Your task to perform on an android device: read, delete, or share a saved page in the chrome app Image 0: 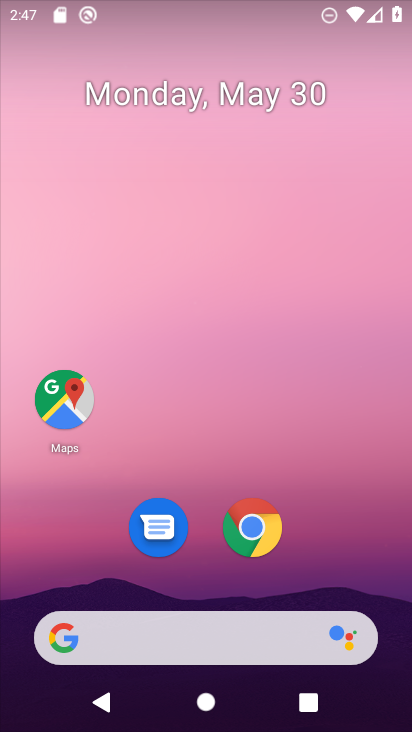
Step 0: drag from (275, 544) to (283, 266)
Your task to perform on an android device: read, delete, or share a saved page in the chrome app Image 1: 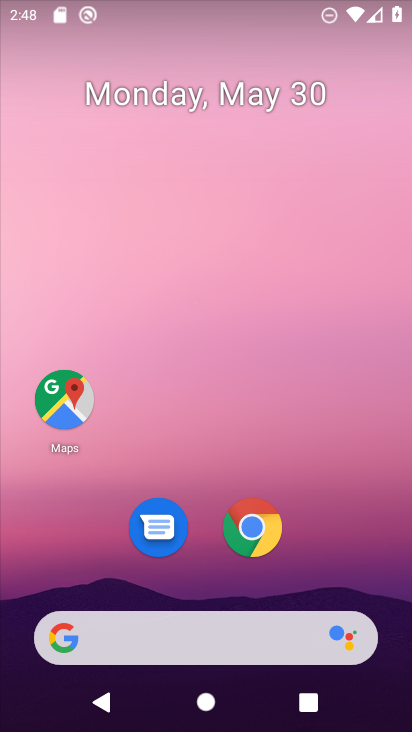
Step 1: click (288, 320)
Your task to perform on an android device: read, delete, or share a saved page in the chrome app Image 2: 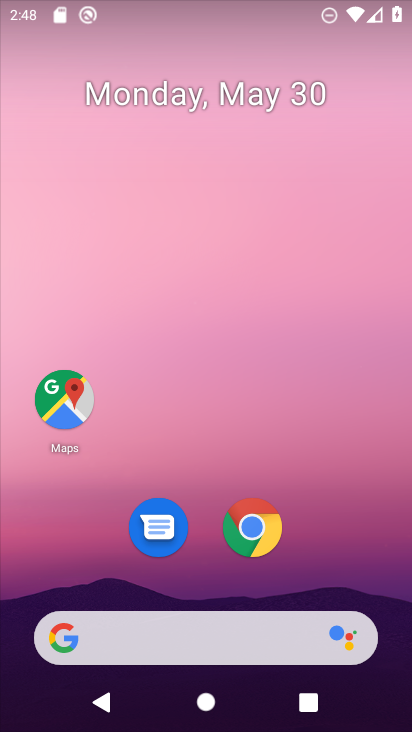
Step 2: drag from (248, 684) to (242, 154)
Your task to perform on an android device: read, delete, or share a saved page in the chrome app Image 3: 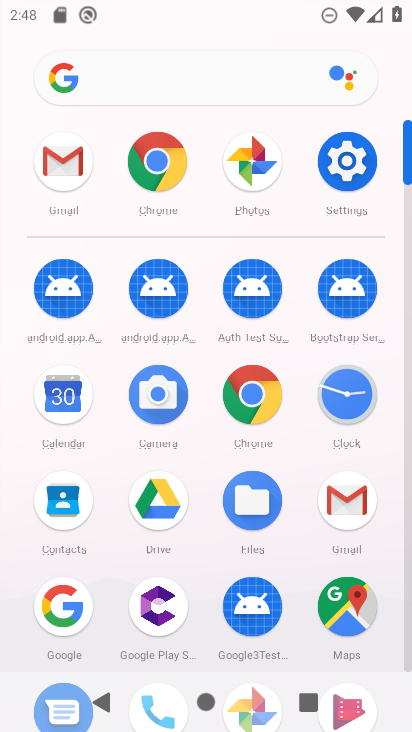
Step 3: click (249, 377)
Your task to perform on an android device: read, delete, or share a saved page in the chrome app Image 4: 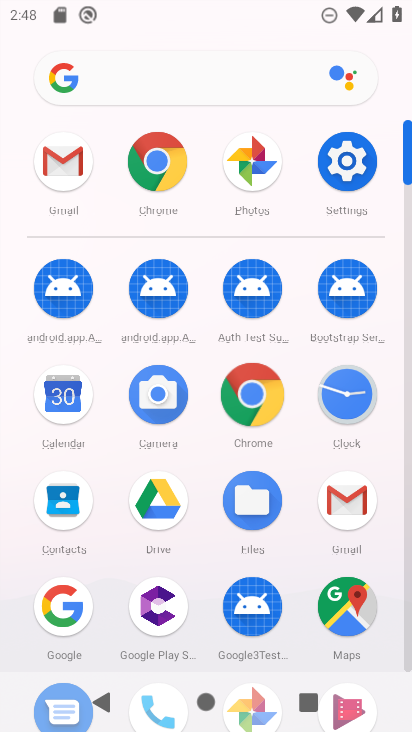
Step 4: click (247, 392)
Your task to perform on an android device: read, delete, or share a saved page in the chrome app Image 5: 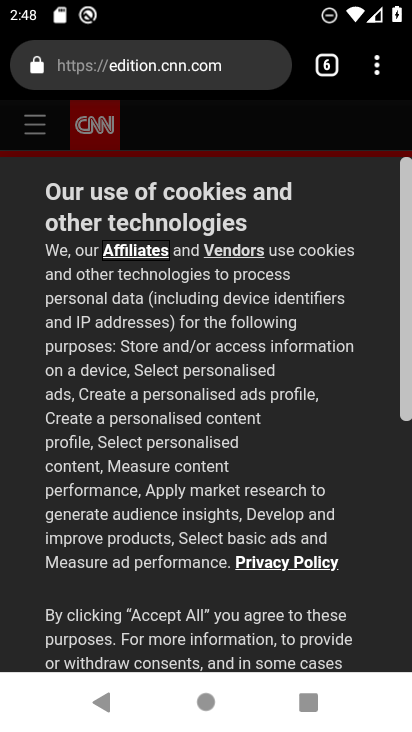
Step 5: drag from (377, 67) to (135, 295)
Your task to perform on an android device: read, delete, or share a saved page in the chrome app Image 6: 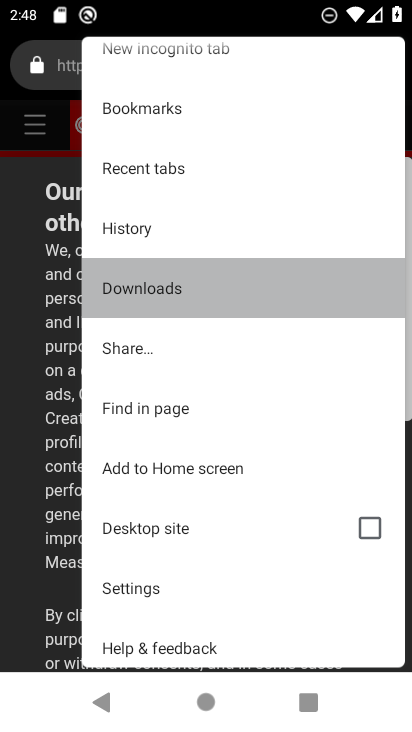
Step 6: click (143, 296)
Your task to perform on an android device: read, delete, or share a saved page in the chrome app Image 7: 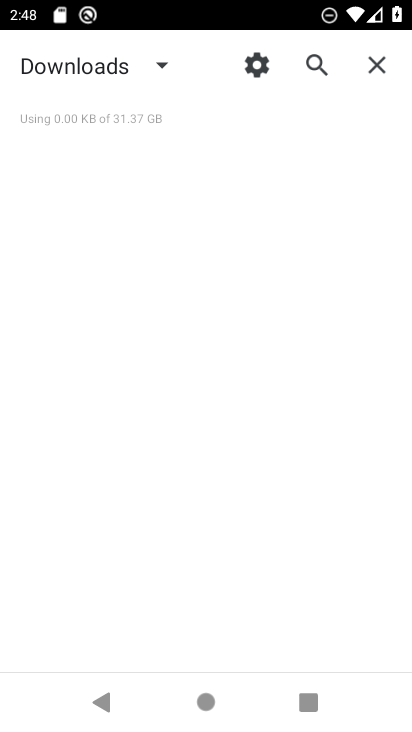
Step 7: click (157, 60)
Your task to perform on an android device: read, delete, or share a saved page in the chrome app Image 8: 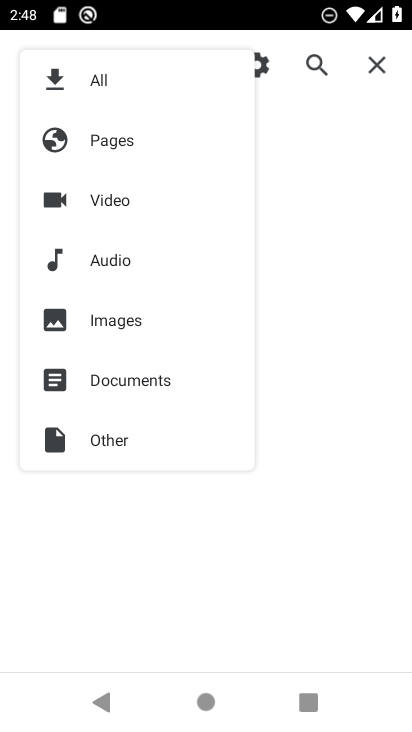
Step 8: click (107, 144)
Your task to perform on an android device: read, delete, or share a saved page in the chrome app Image 9: 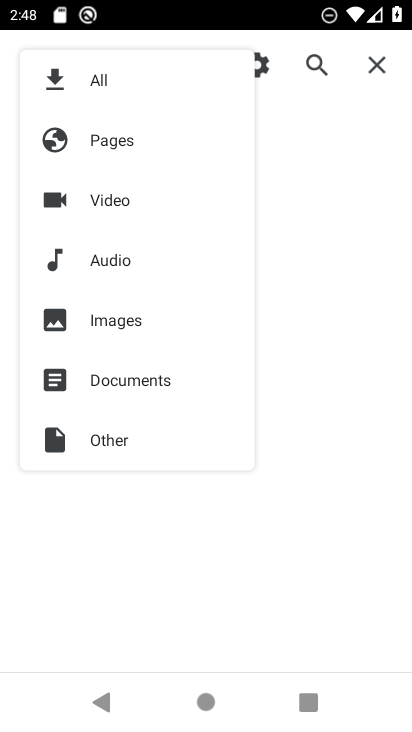
Step 9: click (107, 142)
Your task to perform on an android device: read, delete, or share a saved page in the chrome app Image 10: 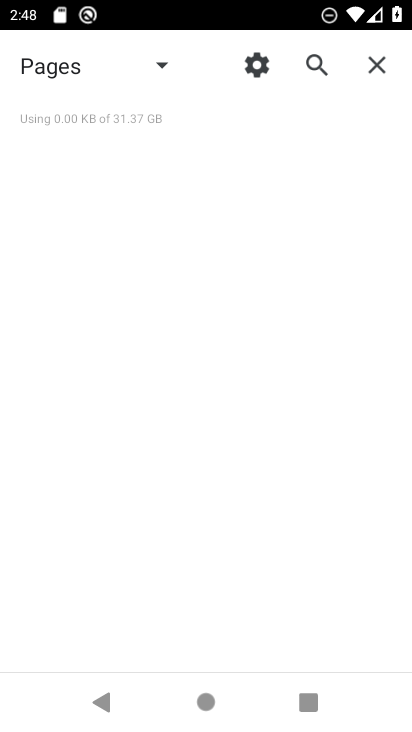
Step 10: click (111, 142)
Your task to perform on an android device: read, delete, or share a saved page in the chrome app Image 11: 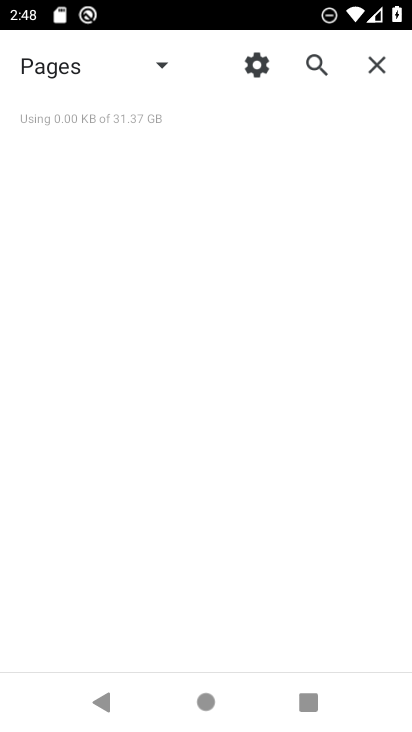
Step 11: click (112, 142)
Your task to perform on an android device: read, delete, or share a saved page in the chrome app Image 12: 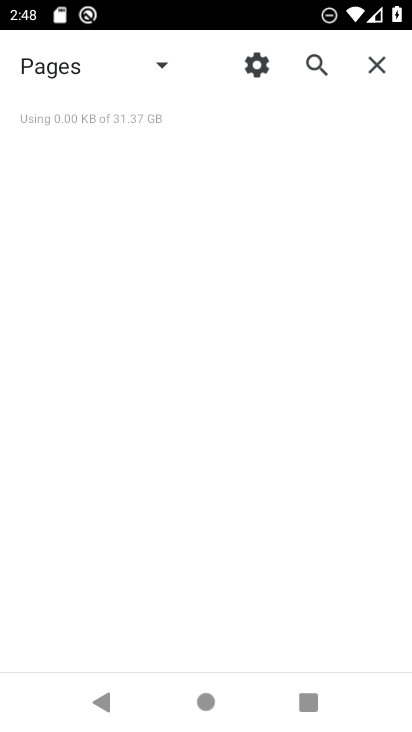
Step 12: task complete